Your task to perform on an android device: open device folders in google photos Image 0: 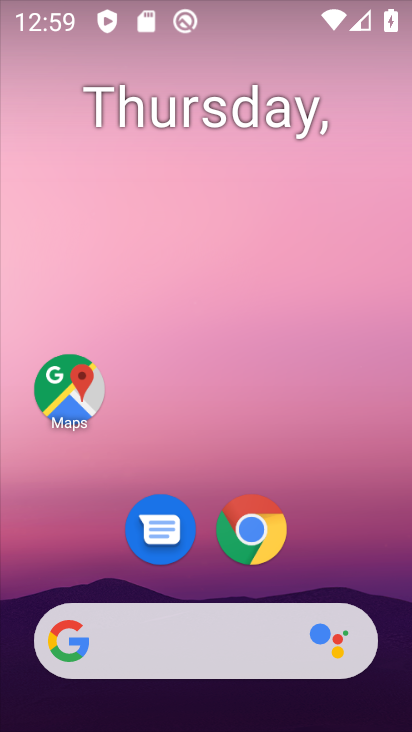
Step 0: drag from (304, 519) to (321, 121)
Your task to perform on an android device: open device folders in google photos Image 1: 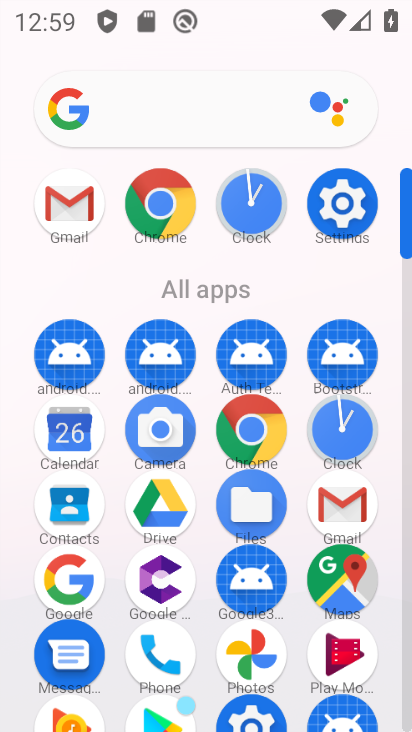
Step 1: click (277, 651)
Your task to perform on an android device: open device folders in google photos Image 2: 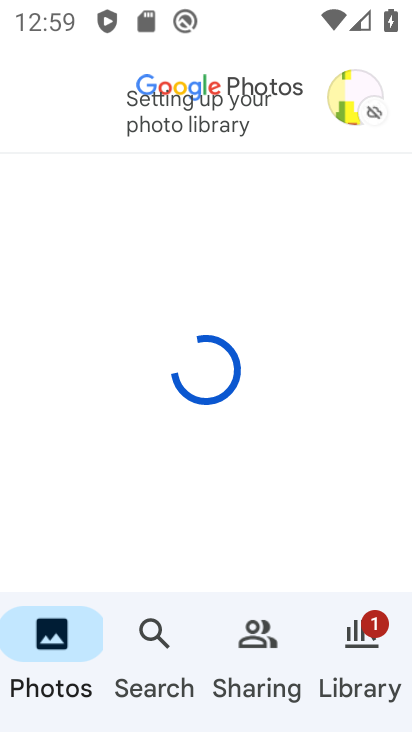
Step 2: click (358, 644)
Your task to perform on an android device: open device folders in google photos Image 3: 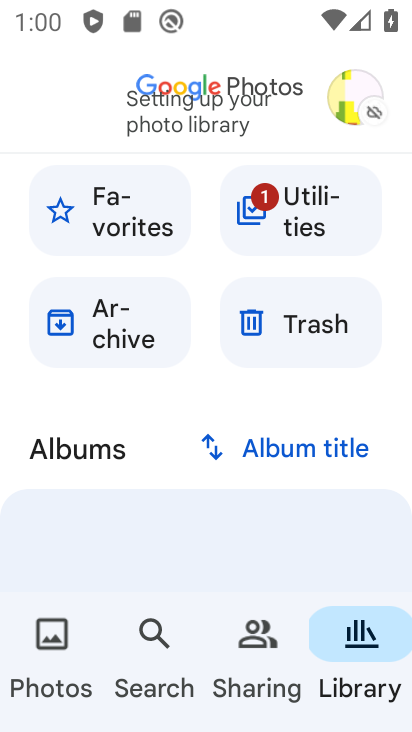
Step 3: task complete